Your task to perform on an android device: Go to Google maps Image 0: 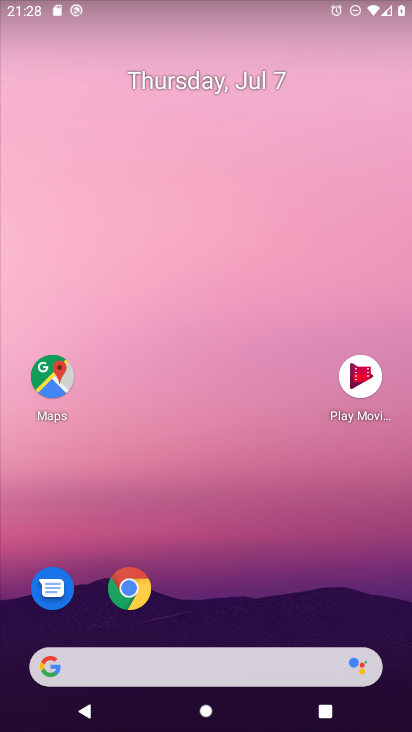
Step 0: drag from (227, 617) to (254, 201)
Your task to perform on an android device: Go to Google maps Image 1: 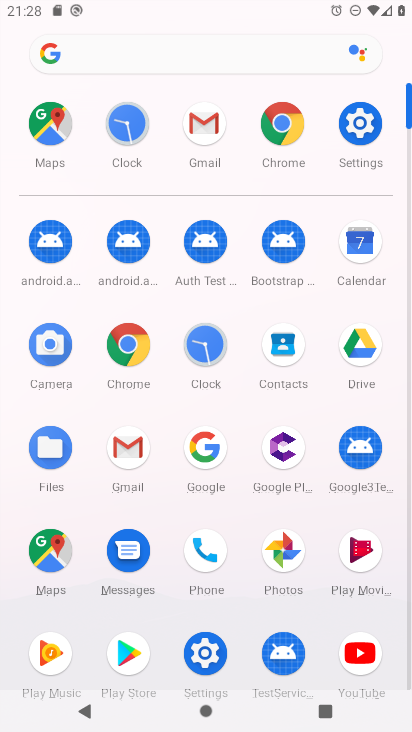
Step 1: click (50, 540)
Your task to perform on an android device: Go to Google maps Image 2: 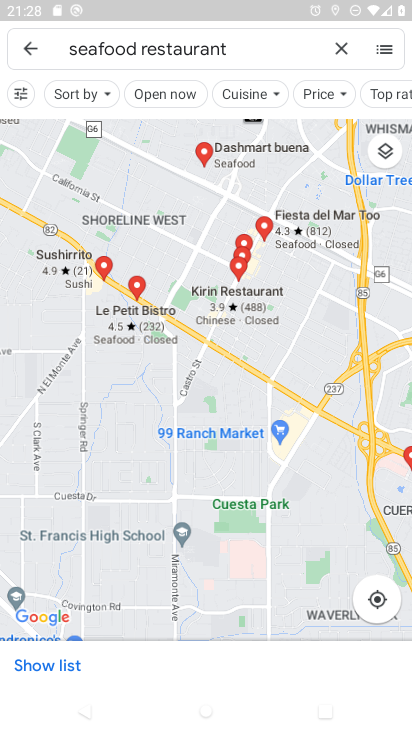
Step 2: click (347, 41)
Your task to perform on an android device: Go to Google maps Image 3: 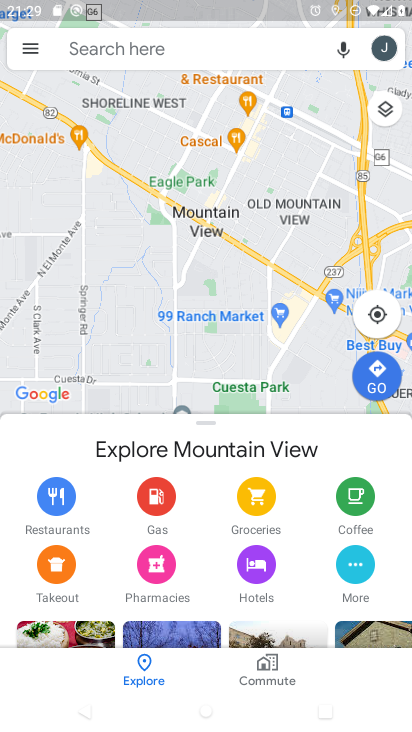
Step 3: task complete